Your task to perform on an android device: Show me recent news Image 0: 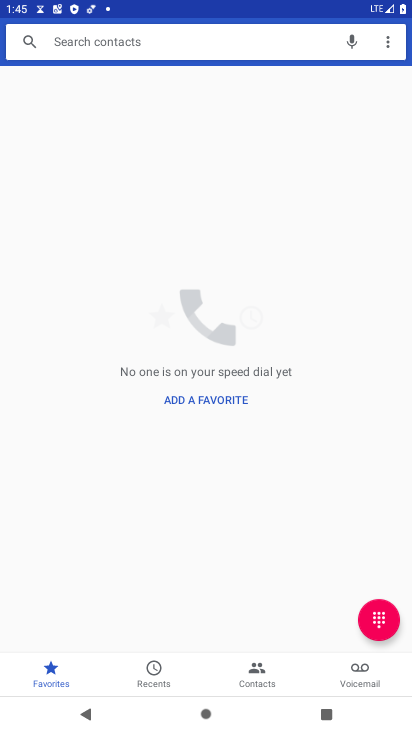
Step 0: press home button
Your task to perform on an android device: Show me recent news Image 1: 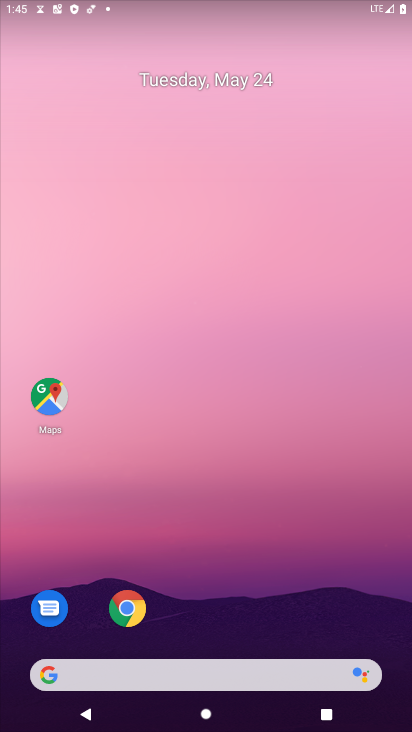
Step 1: click (227, 681)
Your task to perform on an android device: Show me recent news Image 2: 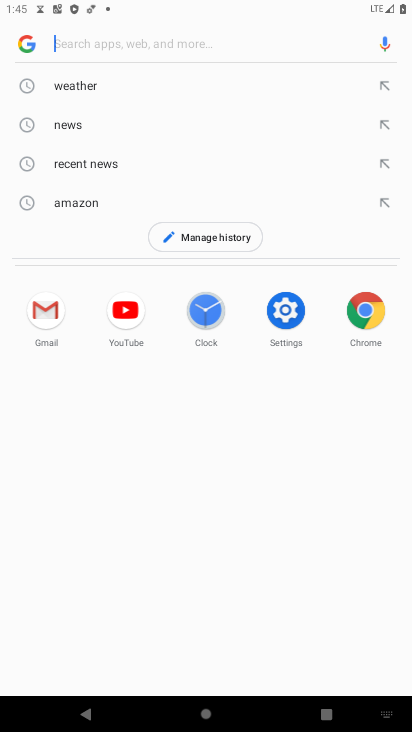
Step 2: click (91, 169)
Your task to perform on an android device: Show me recent news Image 3: 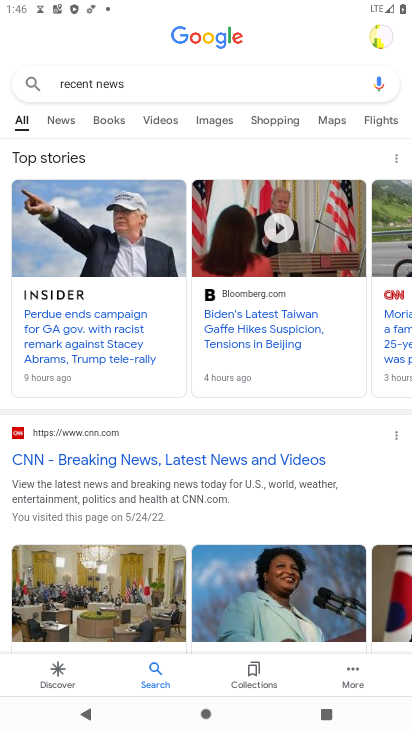
Step 3: task complete